Your task to perform on an android device: Open Android settings Image 0: 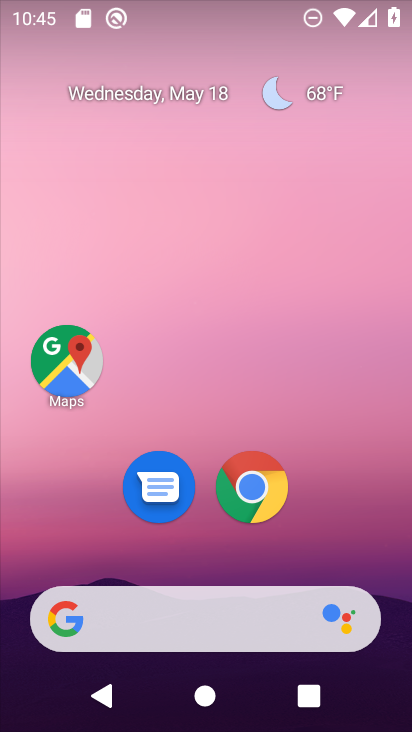
Step 0: drag from (328, 540) to (341, 220)
Your task to perform on an android device: Open Android settings Image 1: 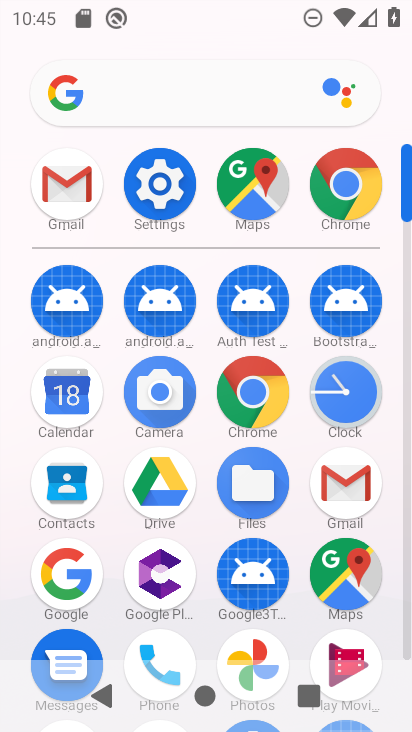
Step 1: click (159, 208)
Your task to perform on an android device: Open Android settings Image 2: 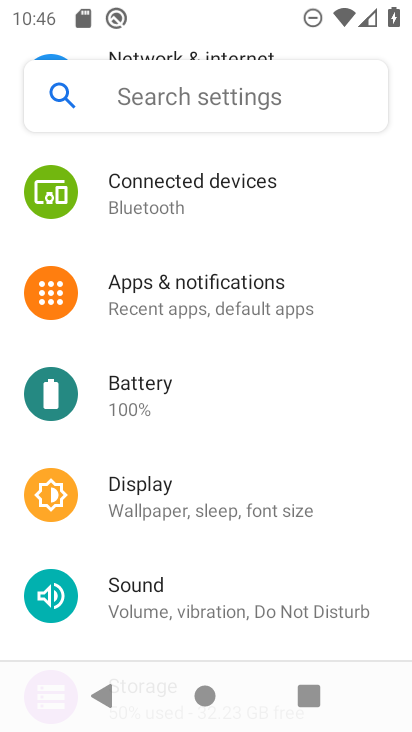
Step 2: task complete